Your task to perform on an android device: Open the calendar and show me this week's events? Image 0: 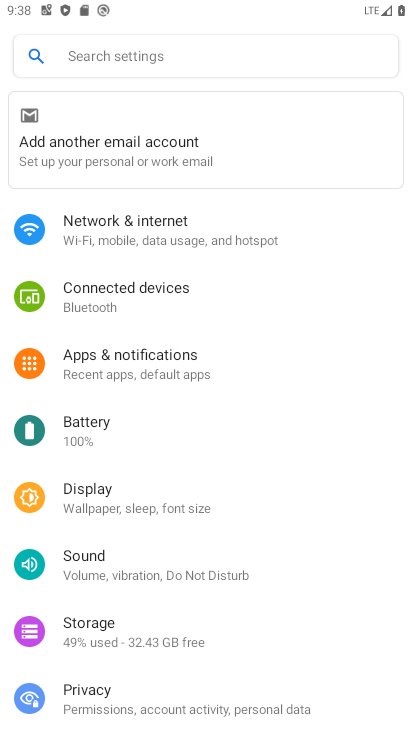
Step 0: press home button
Your task to perform on an android device: Open the calendar and show me this week's events? Image 1: 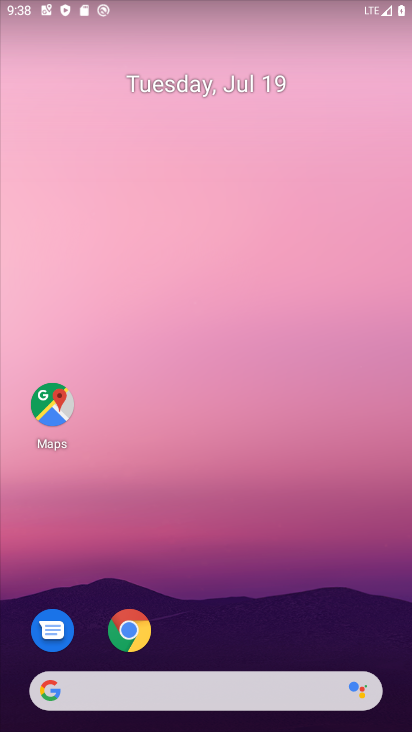
Step 1: drag from (220, 656) to (207, 101)
Your task to perform on an android device: Open the calendar and show me this week's events? Image 2: 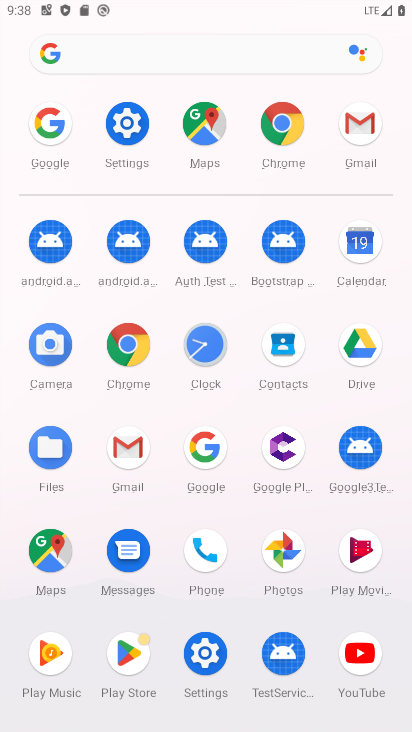
Step 2: click (362, 246)
Your task to perform on an android device: Open the calendar and show me this week's events? Image 3: 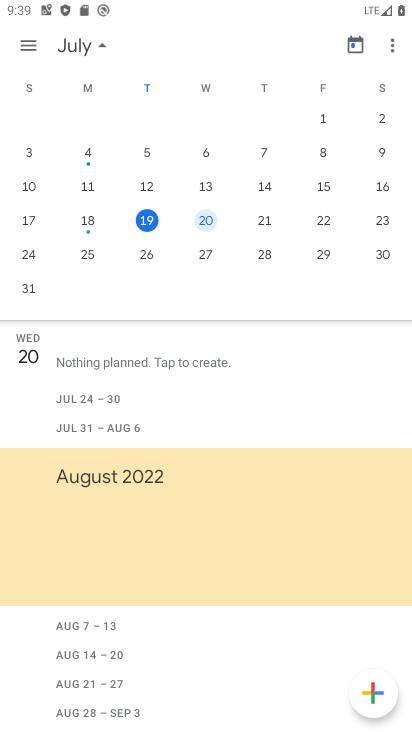
Step 3: click (262, 225)
Your task to perform on an android device: Open the calendar and show me this week's events? Image 4: 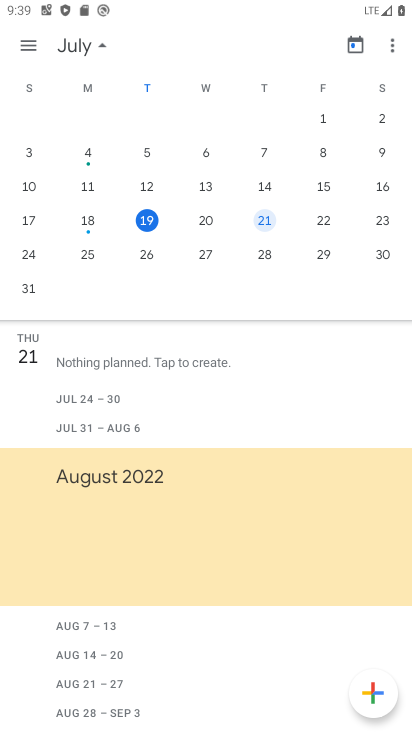
Step 4: task complete